Your task to perform on an android device: Open accessibility settings Image 0: 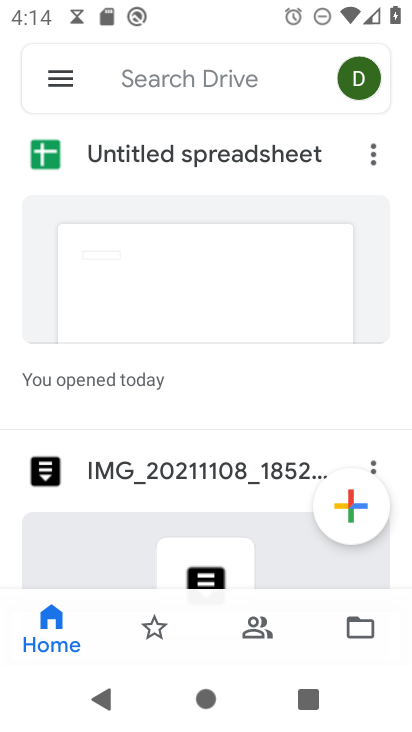
Step 0: press home button
Your task to perform on an android device: Open accessibility settings Image 1: 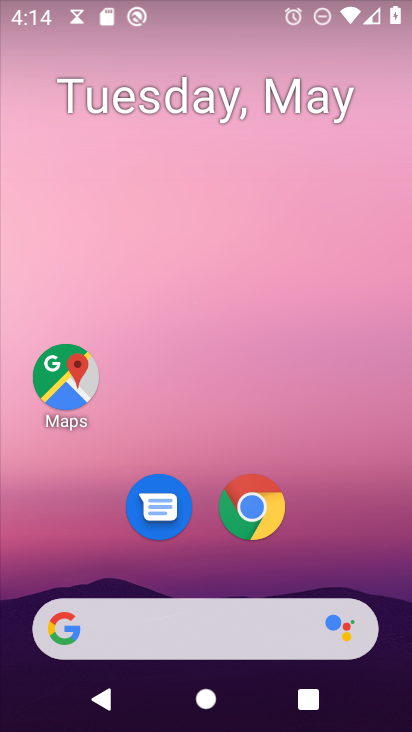
Step 1: drag from (305, 568) to (191, 101)
Your task to perform on an android device: Open accessibility settings Image 2: 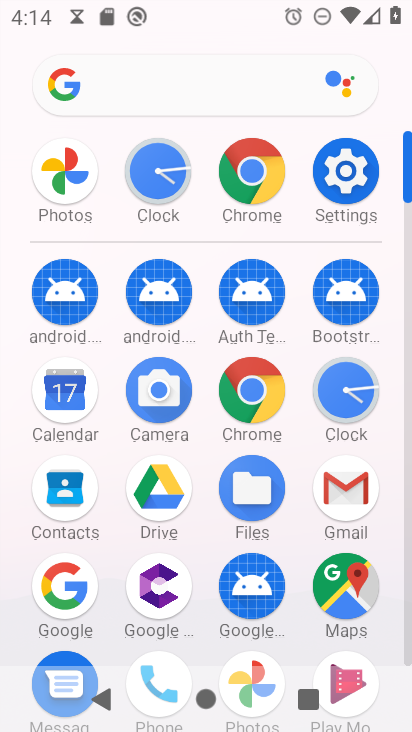
Step 2: click (336, 181)
Your task to perform on an android device: Open accessibility settings Image 3: 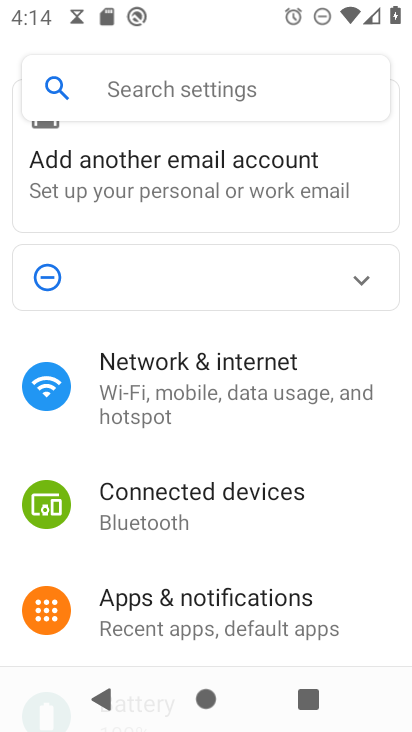
Step 3: drag from (261, 573) to (144, 210)
Your task to perform on an android device: Open accessibility settings Image 4: 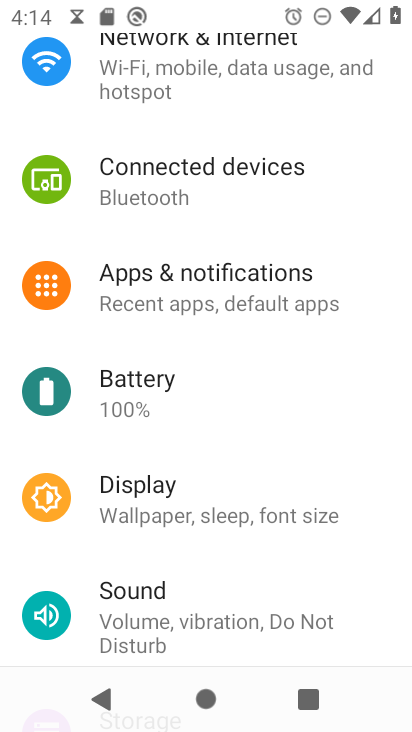
Step 4: drag from (182, 544) to (122, 323)
Your task to perform on an android device: Open accessibility settings Image 5: 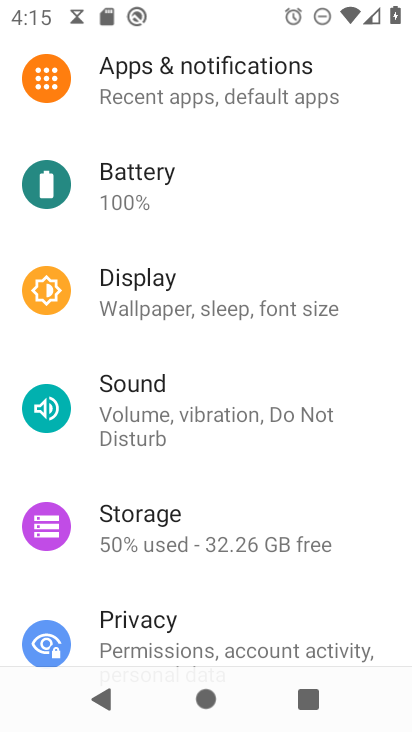
Step 5: drag from (121, 618) to (98, 358)
Your task to perform on an android device: Open accessibility settings Image 6: 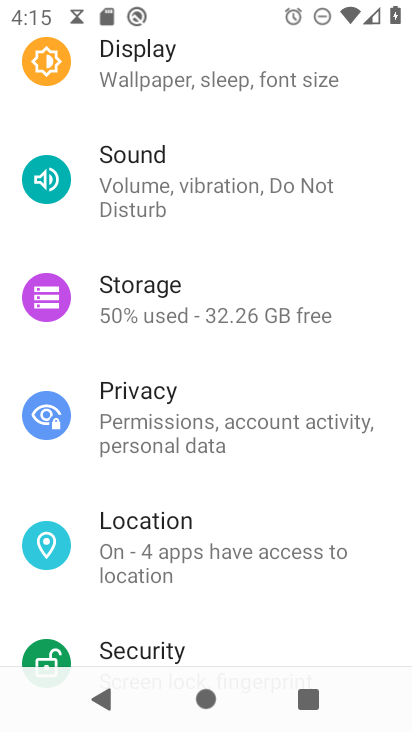
Step 6: drag from (195, 594) to (188, 269)
Your task to perform on an android device: Open accessibility settings Image 7: 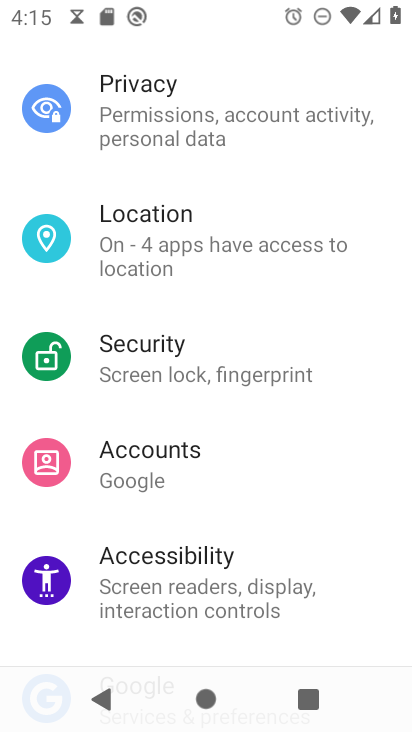
Step 7: click (227, 586)
Your task to perform on an android device: Open accessibility settings Image 8: 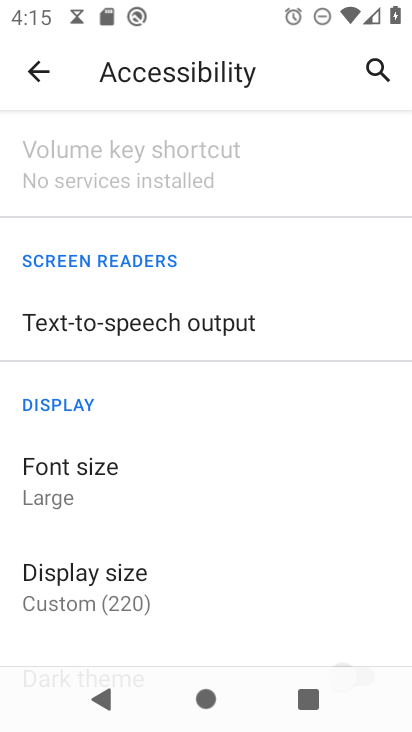
Step 8: task complete